Your task to perform on an android device: toggle notifications settings in the gmail app Image 0: 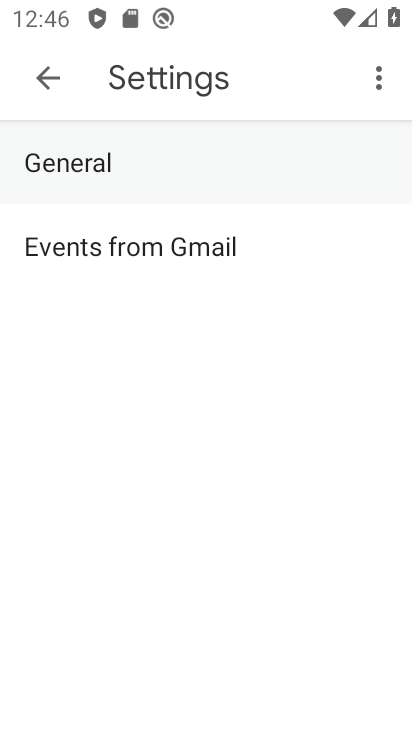
Step 0: press home button
Your task to perform on an android device: toggle notifications settings in the gmail app Image 1: 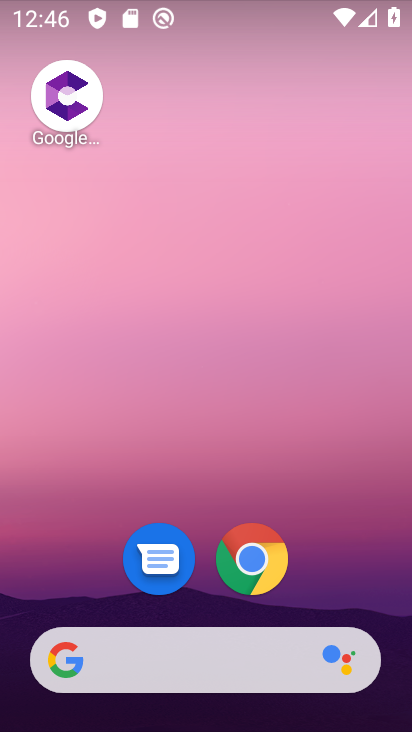
Step 1: drag from (348, 586) to (337, 149)
Your task to perform on an android device: toggle notifications settings in the gmail app Image 2: 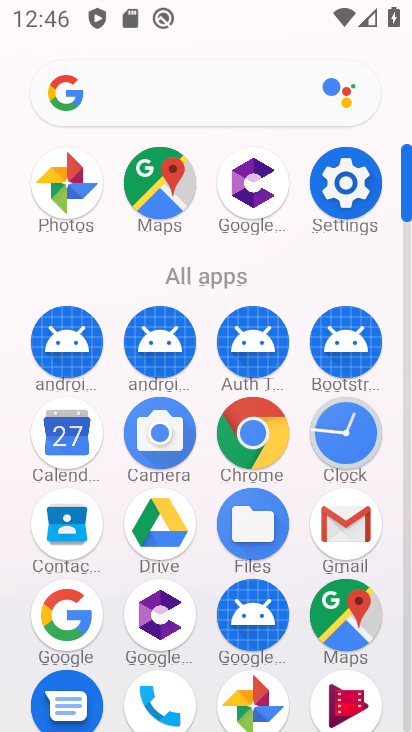
Step 2: click (329, 520)
Your task to perform on an android device: toggle notifications settings in the gmail app Image 3: 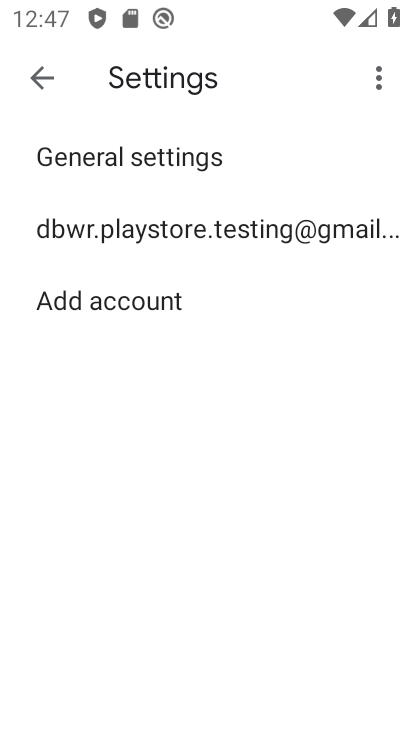
Step 3: click (295, 234)
Your task to perform on an android device: toggle notifications settings in the gmail app Image 4: 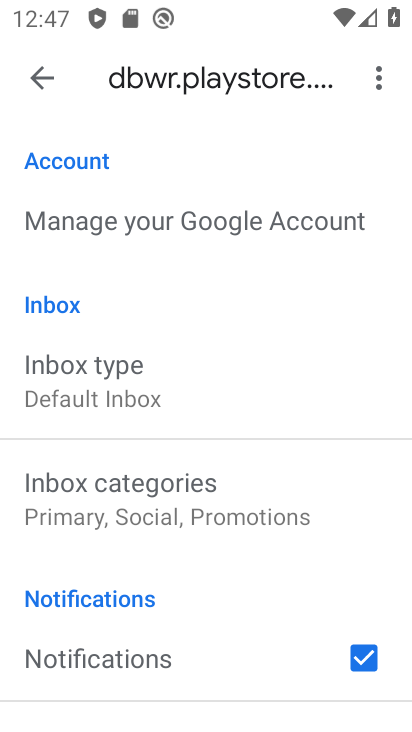
Step 4: drag from (204, 676) to (322, 349)
Your task to perform on an android device: toggle notifications settings in the gmail app Image 5: 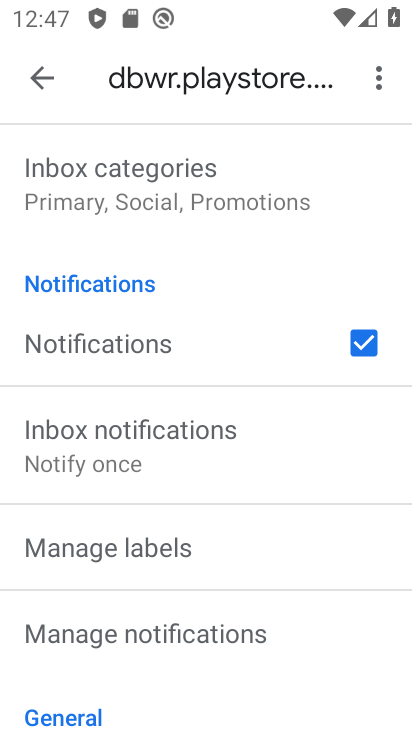
Step 5: drag from (257, 274) to (260, 567)
Your task to perform on an android device: toggle notifications settings in the gmail app Image 6: 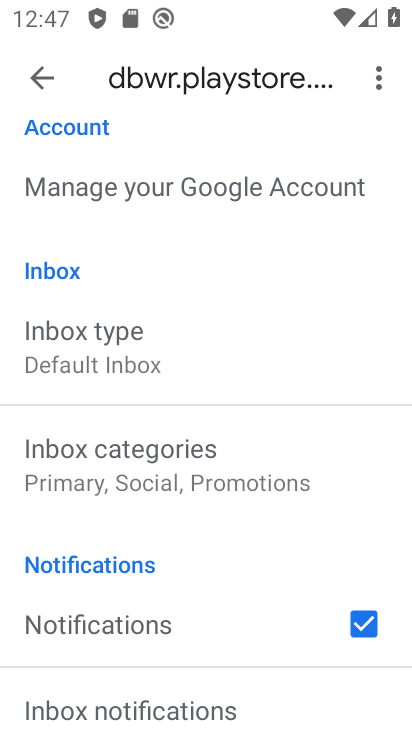
Step 6: drag from (194, 557) to (263, 231)
Your task to perform on an android device: toggle notifications settings in the gmail app Image 7: 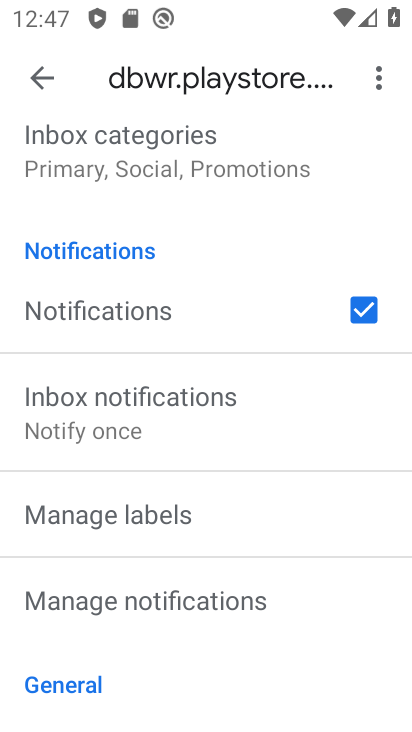
Step 7: click (122, 410)
Your task to perform on an android device: toggle notifications settings in the gmail app Image 8: 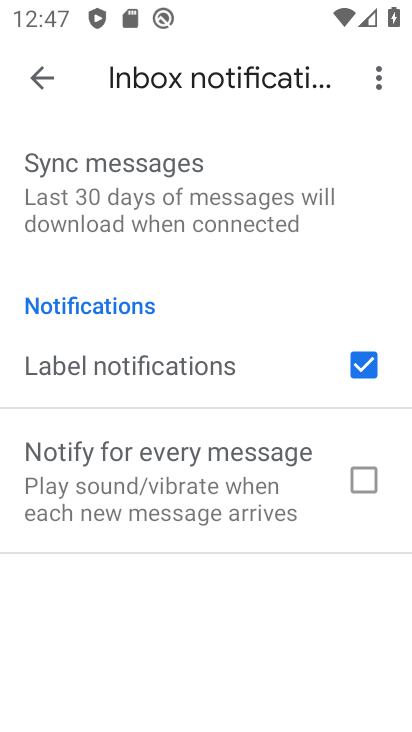
Step 8: task complete